Your task to perform on an android device: Go to calendar. Show me events next week Image 0: 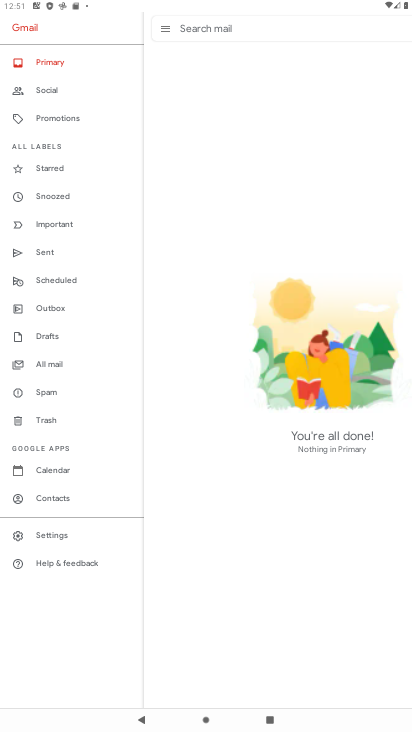
Step 0: press home button
Your task to perform on an android device: Go to calendar. Show me events next week Image 1: 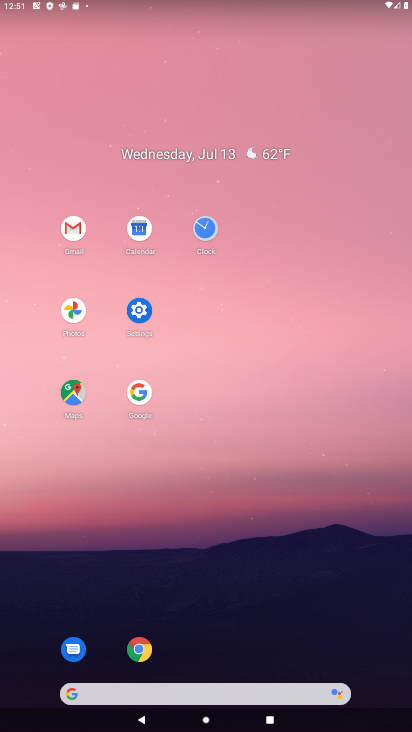
Step 1: click (140, 233)
Your task to perform on an android device: Go to calendar. Show me events next week Image 2: 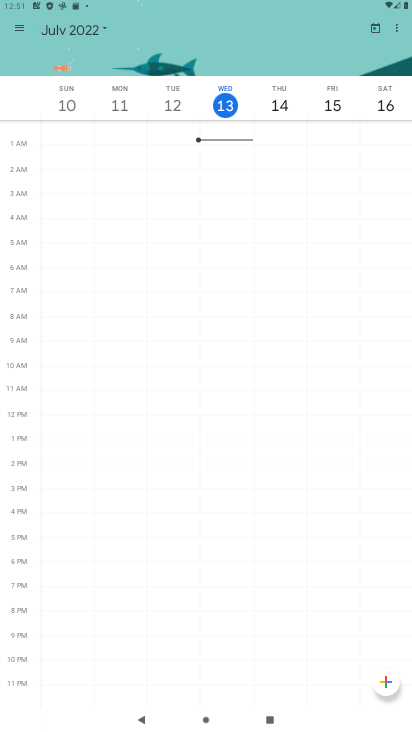
Step 2: task complete